Your task to perform on an android device: Search for Mexican restaurants on Maps Image 0: 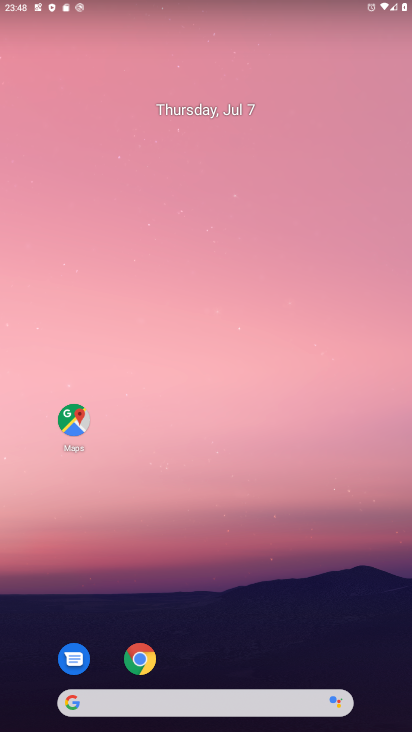
Step 0: click (67, 419)
Your task to perform on an android device: Search for Mexican restaurants on Maps Image 1: 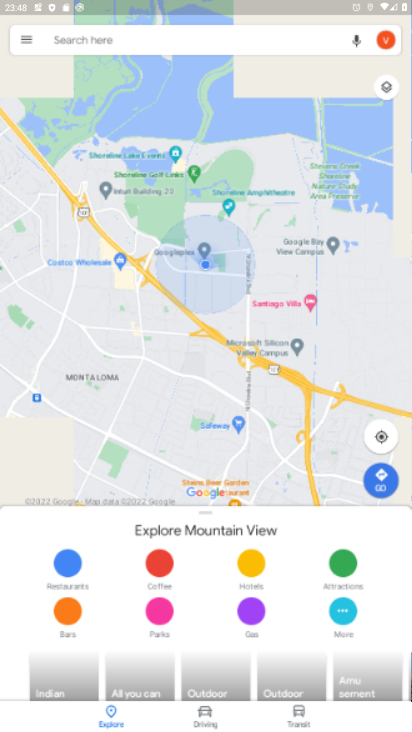
Step 1: click (305, 39)
Your task to perform on an android device: Search for Mexican restaurants on Maps Image 2: 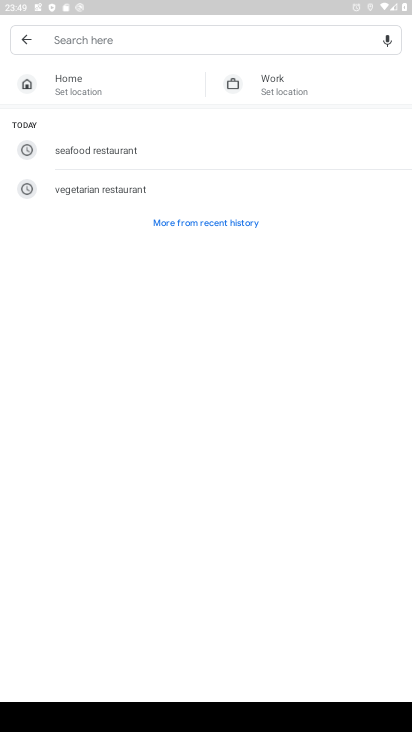
Step 2: click (223, 228)
Your task to perform on an android device: Search for Mexican restaurants on Maps Image 3: 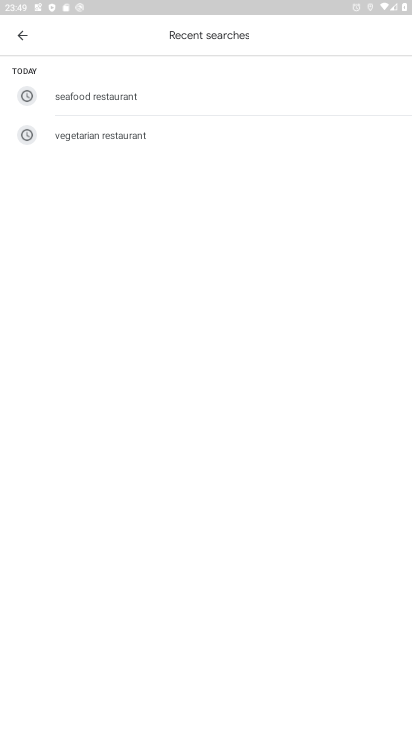
Step 3: click (22, 34)
Your task to perform on an android device: Search for Mexican restaurants on Maps Image 4: 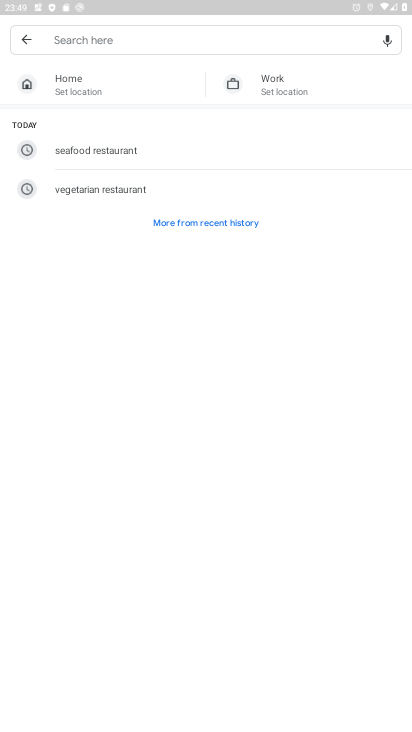
Step 4: click (189, 29)
Your task to perform on an android device: Search for Mexican restaurants on Maps Image 5: 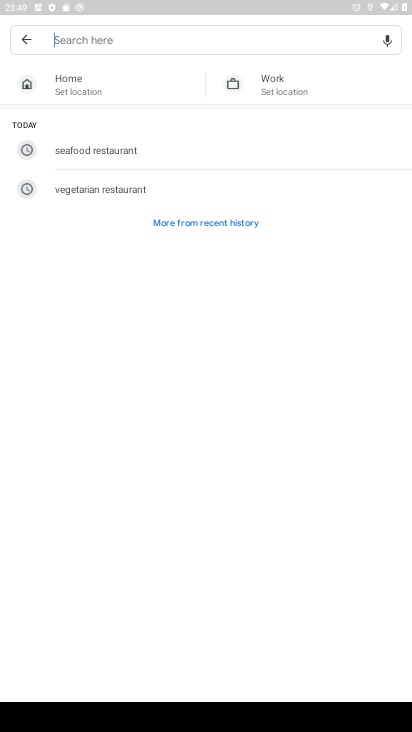
Step 5: type "mexican restaurant"
Your task to perform on an android device: Search for Mexican restaurants on Maps Image 6: 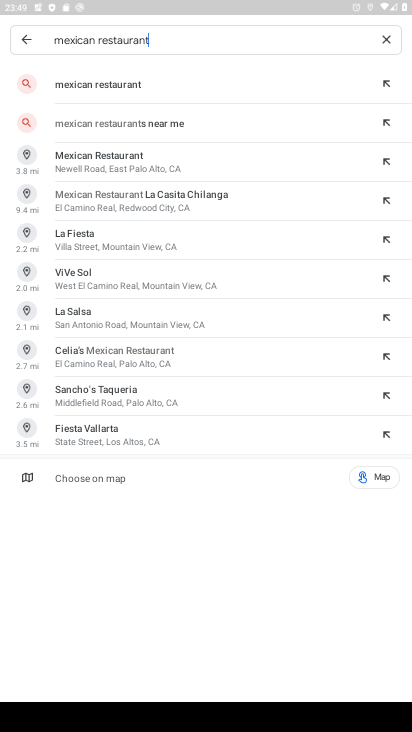
Step 6: click (206, 128)
Your task to perform on an android device: Search for Mexican restaurants on Maps Image 7: 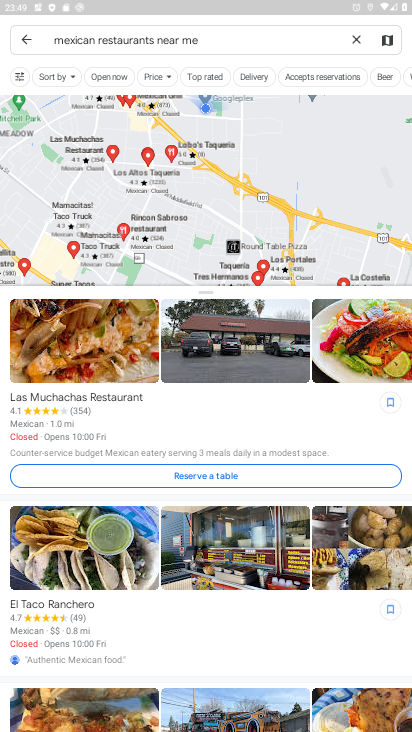
Step 7: task complete